Your task to perform on an android device: Is it going to rain today? Image 0: 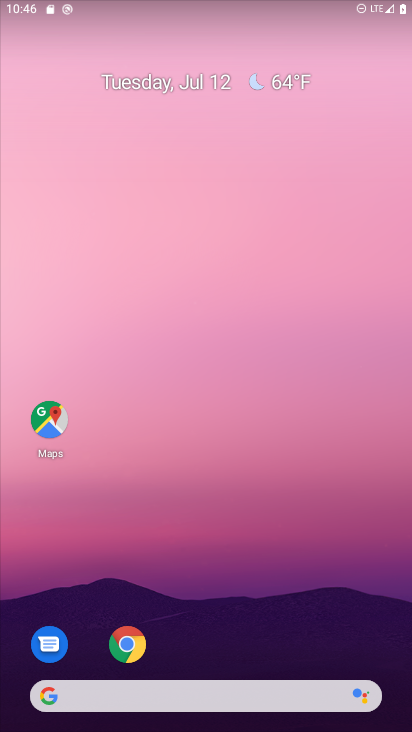
Step 0: drag from (292, 660) to (251, 244)
Your task to perform on an android device: Is it going to rain today? Image 1: 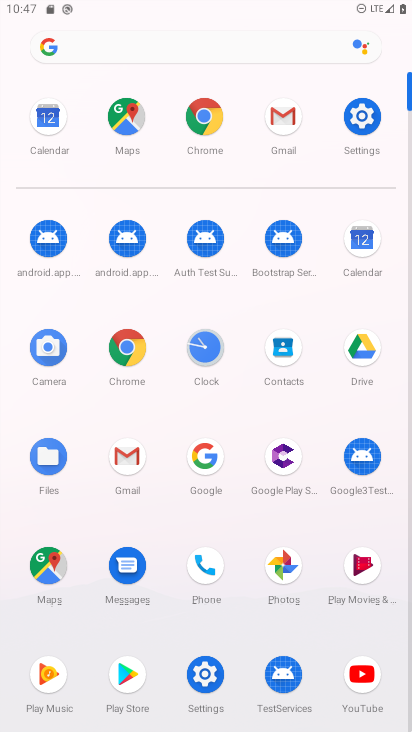
Step 1: click (232, 57)
Your task to perform on an android device: Is it going to rain today? Image 2: 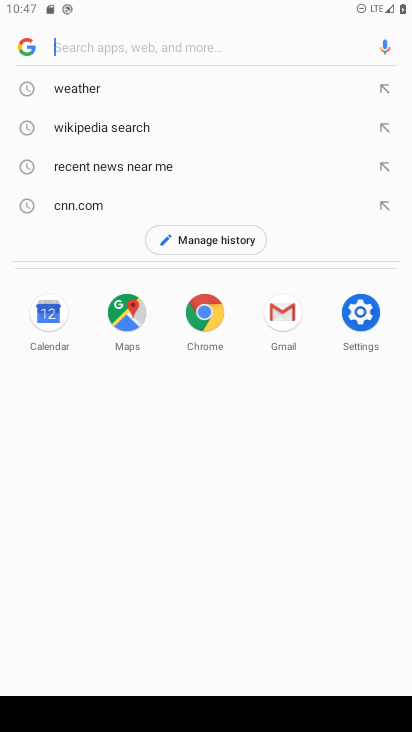
Step 2: click (136, 55)
Your task to perform on an android device: Is it going to rain today? Image 3: 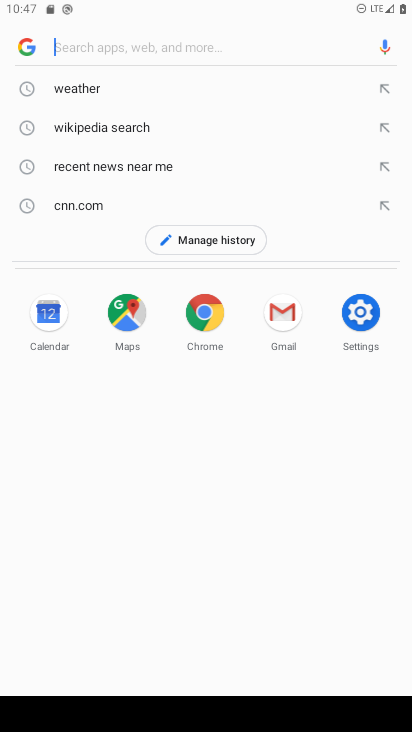
Step 3: click (130, 76)
Your task to perform on an android device: Is it going to rain today? Image 4: 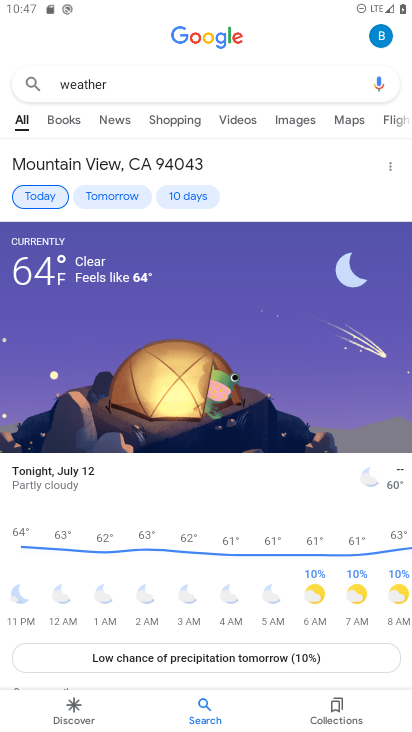
Step 4: task complete